Your task to perform on an android device: Open Amazon Image 0: 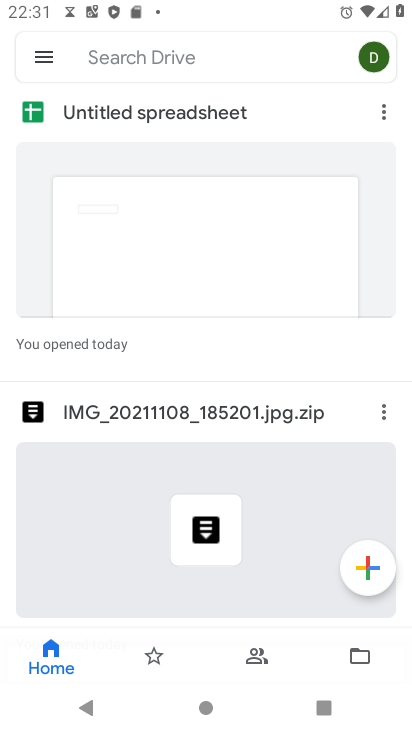
Step 0: press home button
Your task to perform on an android device: Open Amazon Image 1: 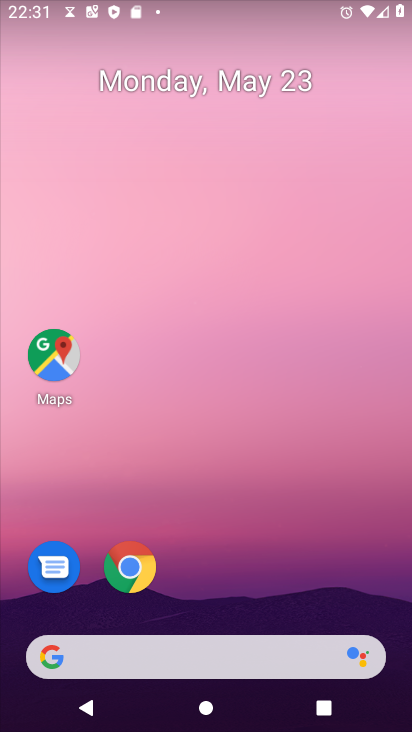
Step 1: drag from (265, 615) to (281, 265)
Your task to perform on an android device: Open Amazon Image 2: 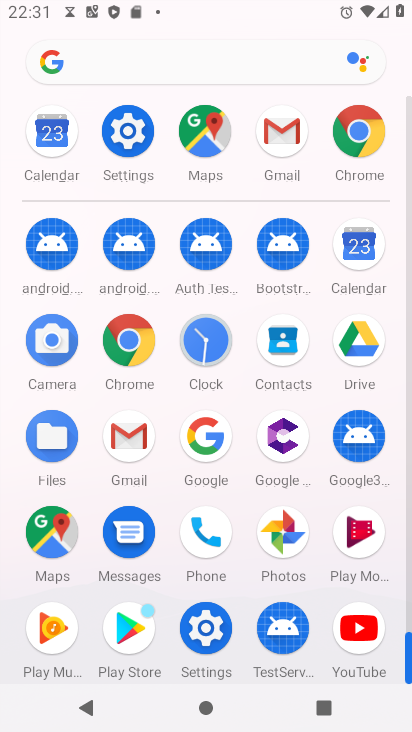
Step 2: click (360, 124)
Your task to perform on an android device: Open Amazon Image 3: 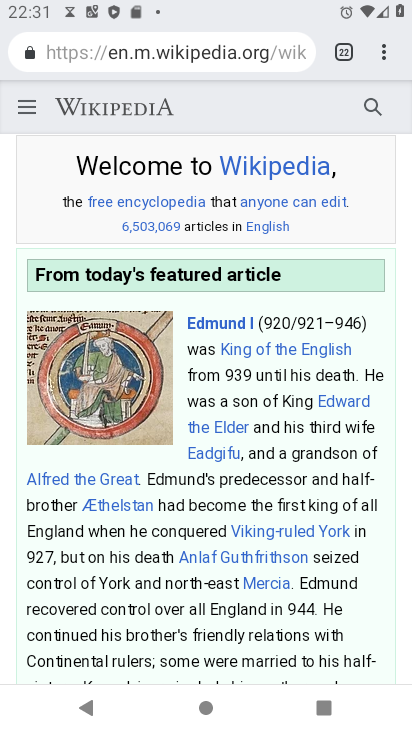
Step 3: click (375, 65)
Your task to perform on an android device: Open Amazon Image 4: 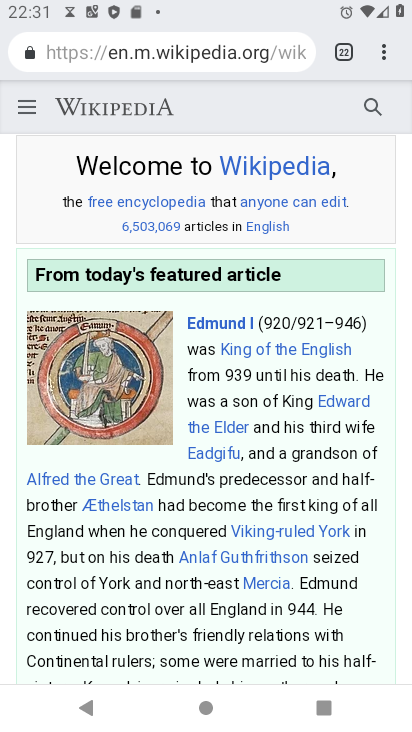
Step 4: click (374, 35)
Your task to perform on an android device: Open Amazon Image 5: 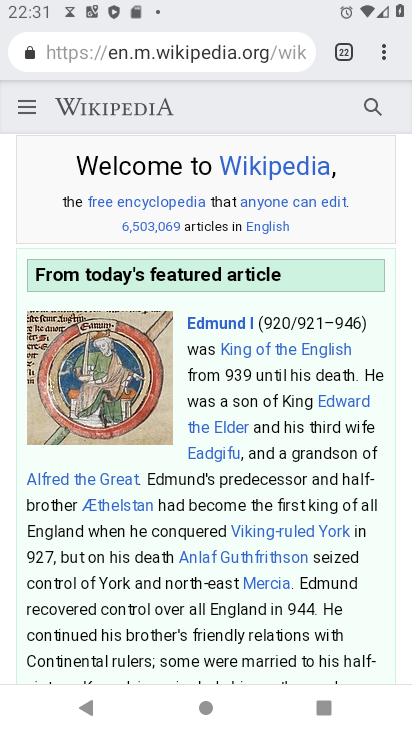
Step 5: click (376, 54)
Your task to perform on an android device: Open Amazon Image 6: 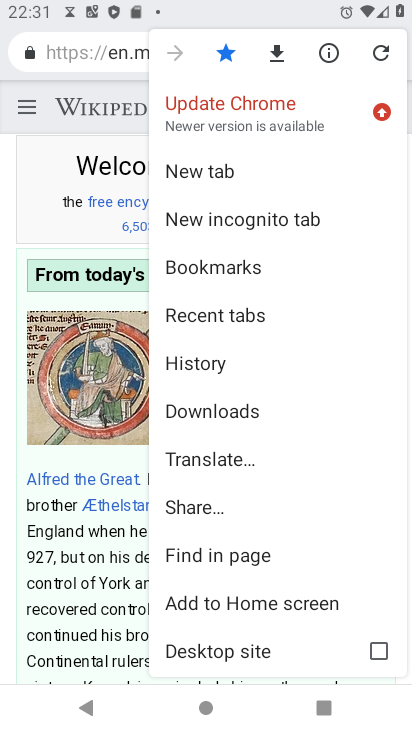
Step 6: click (229, 169)
Your task to perform on an android device: Open Amazon Image 7: 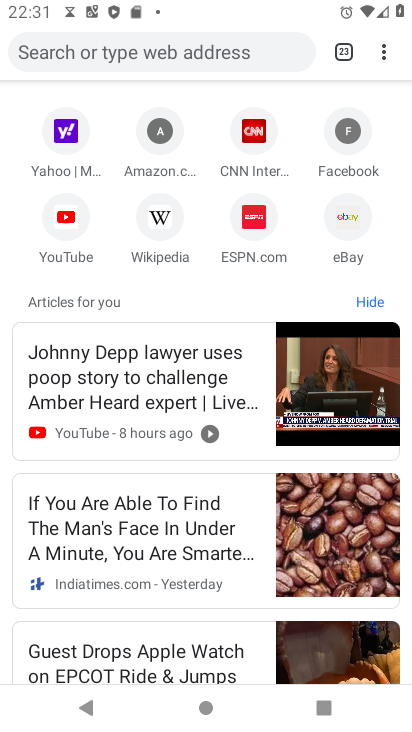
Step 7: click (156, 124)
Your task to perform on an android device: Open Amazon Image 8: 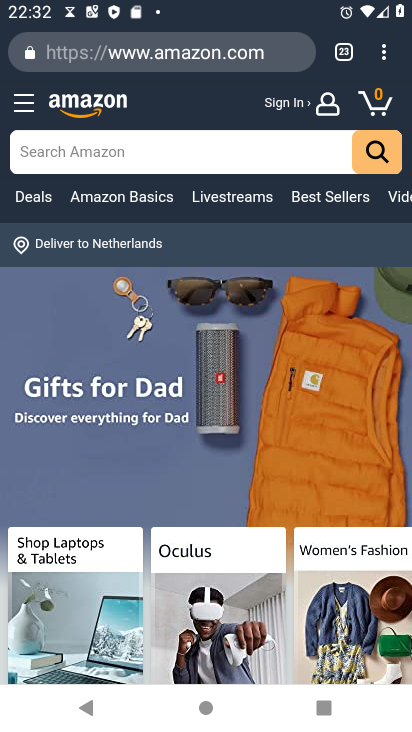
Step 8: task complete